Your task to perform on an android device: Go to Wikipedia Image 0: 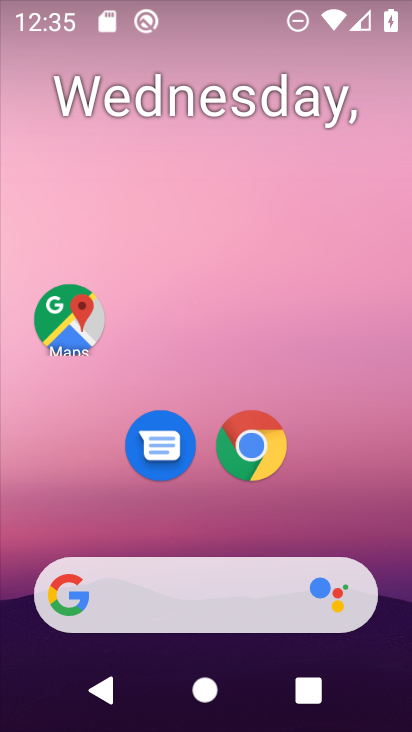
Step 0: drag from (392, 642) to (320, 13)
Your task to perform on an android device: Go to Wikipedia Image 1: 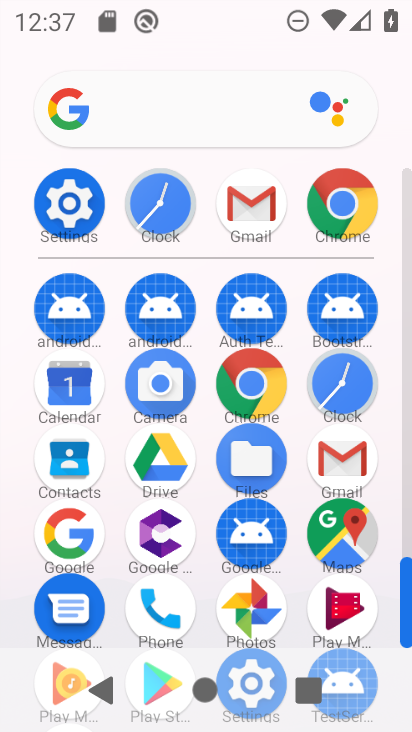
Step 1: click (73, 529)
Your task to perform on an android device: Go to Wikipedia Image 2: 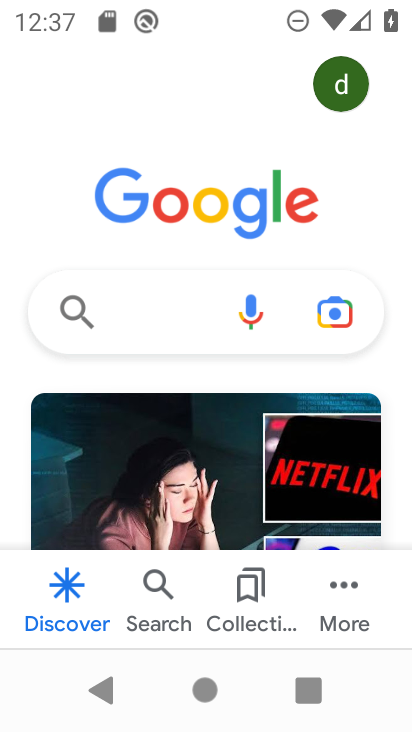
Step 2: click (175, 293)
Your task to perform on an android device: Go to Wikipedia Image 3: 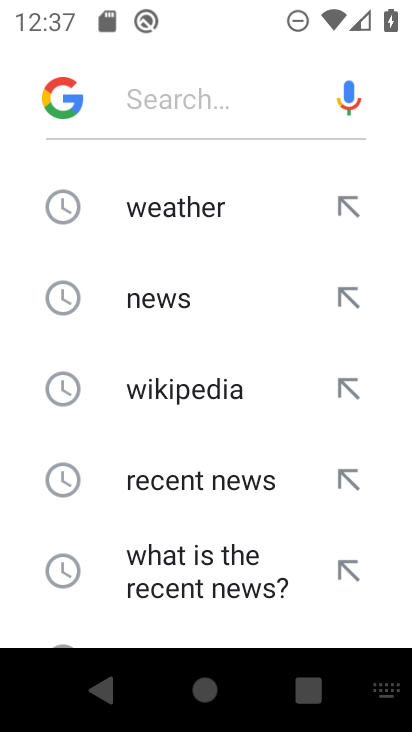
Step 3: click (183, 400)
Your task to perform on an android device: Go to Wikipedia Image 4: 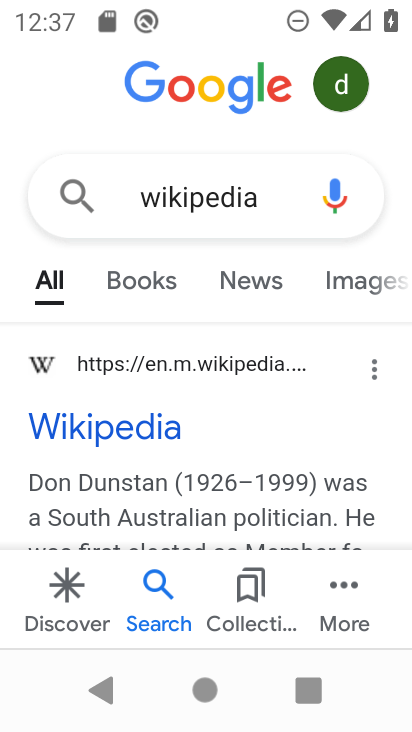
Step 4: task complete